Your task to perform on an android device: turn off javascript in the chrome app Image 0: 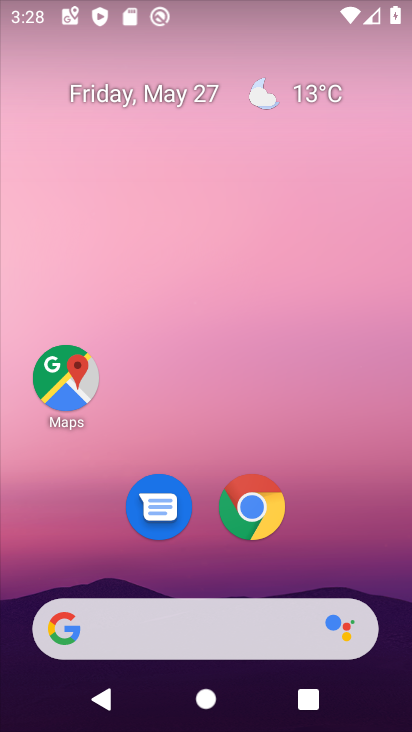
Step 0: click (257, 489)
Your task to perform on an android device: turn off javascript in the chrome app Image 1: 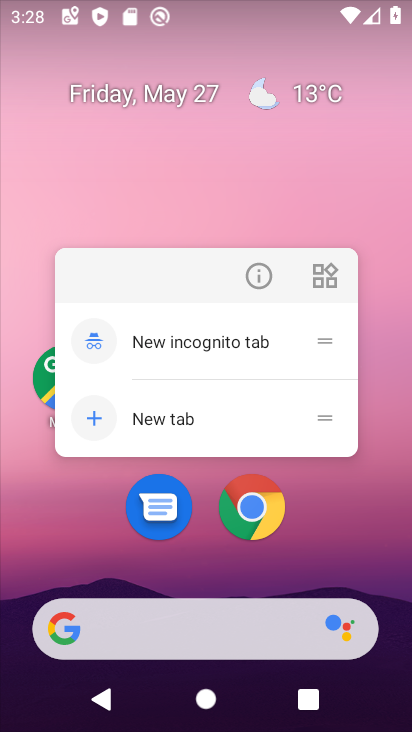
Step 1: click (257, 496)
Your task to perform on an android device: turn off javascript in the chrome app Image 2: 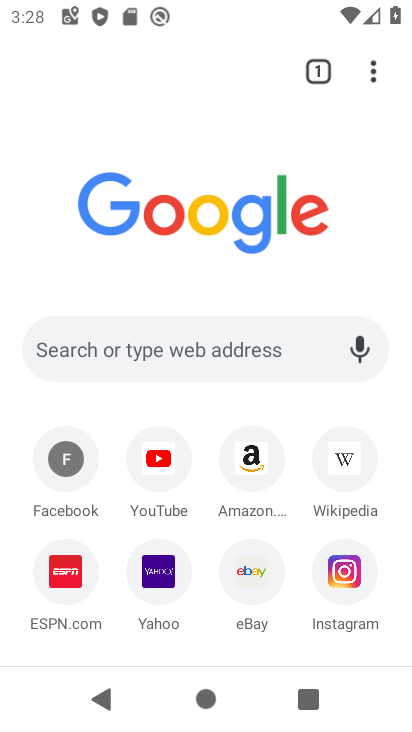
Step 2: drag from (367, 58) to (262, 519)
Your task to perform on an android device: turn off javascript in the chrome app Image 3: 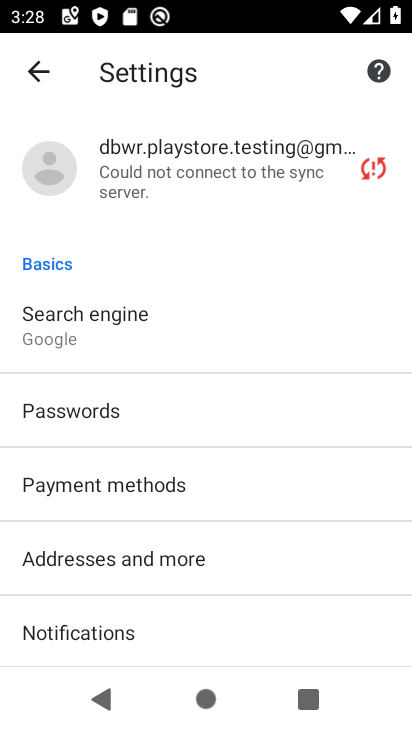
Step 3: drag from (115, 585) to (280, 217)
Your task to perform on an android device: turn off javascript in the chrome app Image 4: 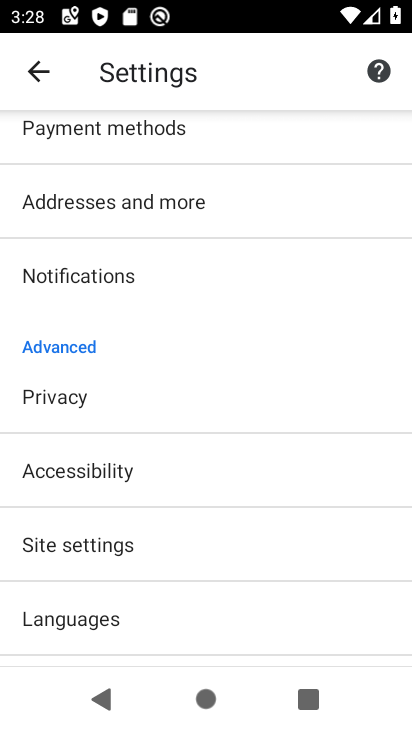
Step 4: click (169, 563)
Your task to perform on an android device: turn off javascript in the chrome app Image 5: 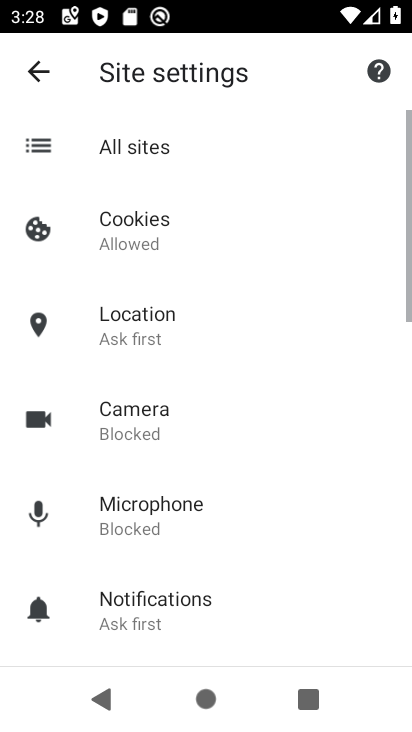
Step 5: drag from (176, 509) to (290, 167)
Your task to perform on an android device: turn off javascript in the chrome app Image 6: 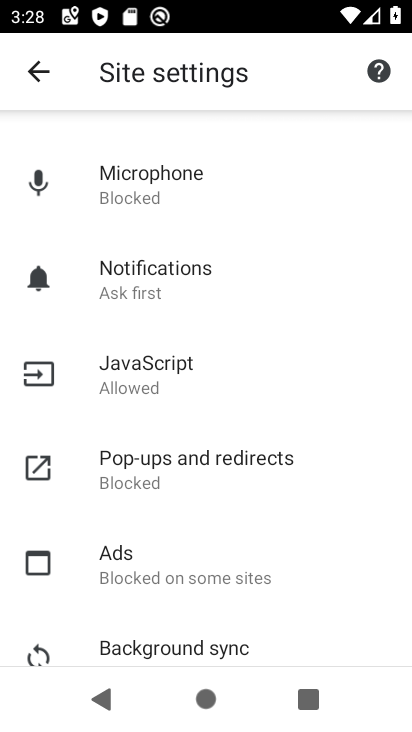
Step 6: click (165, 367)
Your task to perform on an android device: turn off javascript in the chrome app Image 7: 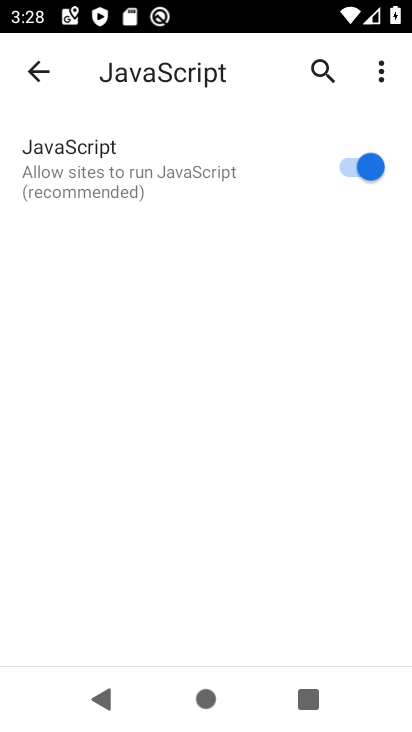
Step 7: click (358, 160)
Your task to perform on an android device: turn off javascript in the chrome app Image 8: 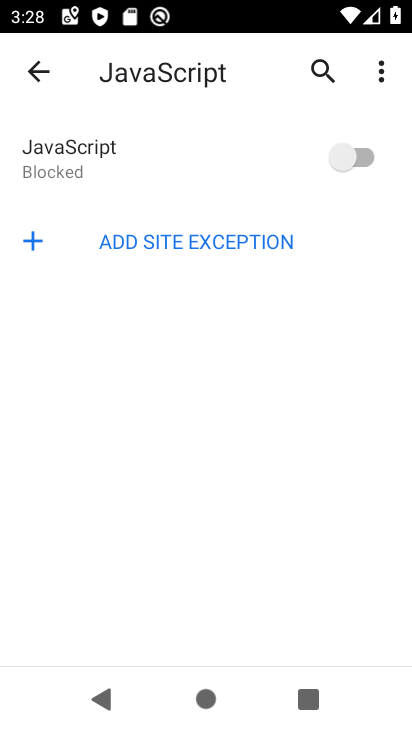
Step 8: task complete